Your task to perform on an android device: turn off wifi Image 0: 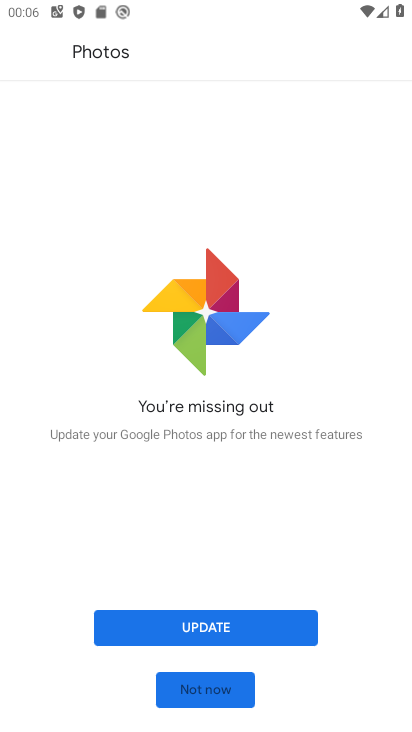
Step 0: press home button
Your task to perform on an android device: turn off wifi Image 1: 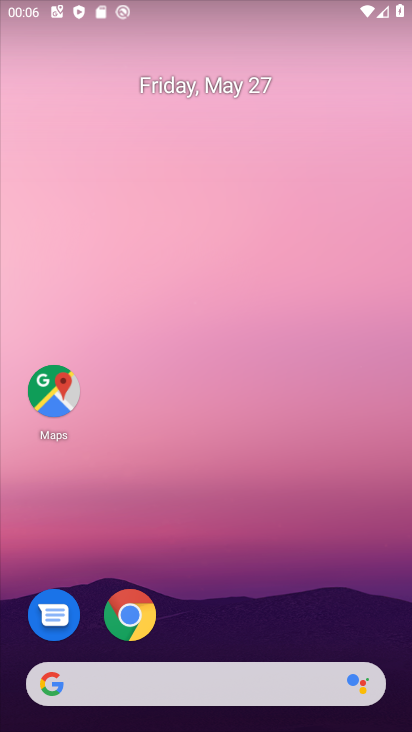
Step 1: drag from (263, 103) to (283, 654)
Your task to perform on an android device: turn off wifi Image 2: 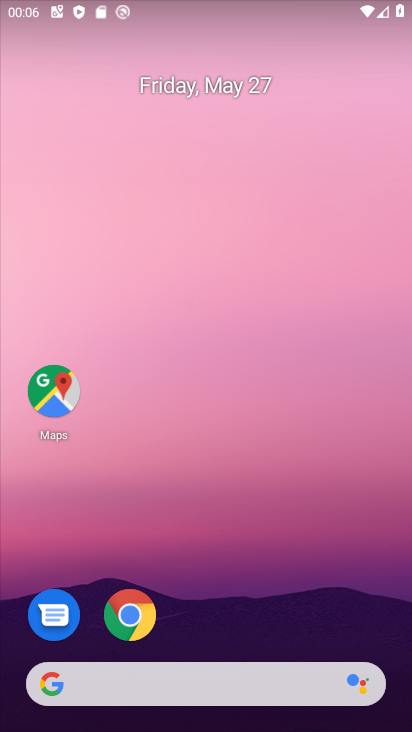
Step 2: drag from (379, 6) to (326, 694)
Your task to perform on an android device: turn off wifi Image 3: 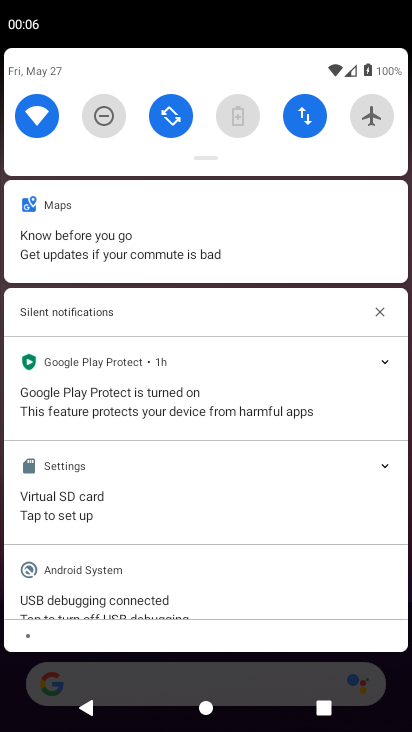
Step 3: click (42, 119)
Your task to perform on an android device: turn off wifi Image 4: 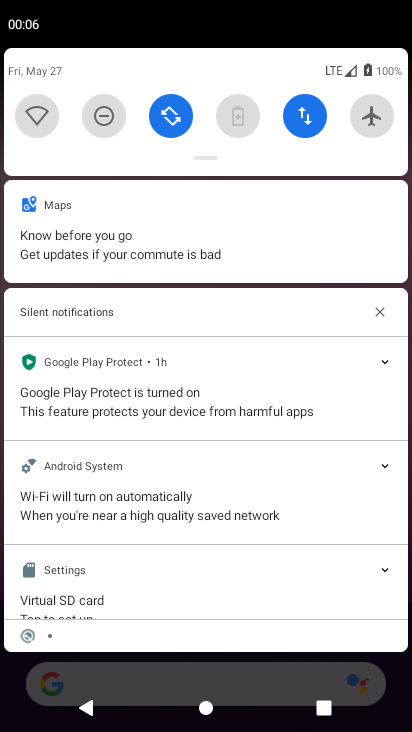
Step 4: task complete